Your task to perform on an android device: check android version Image 0: 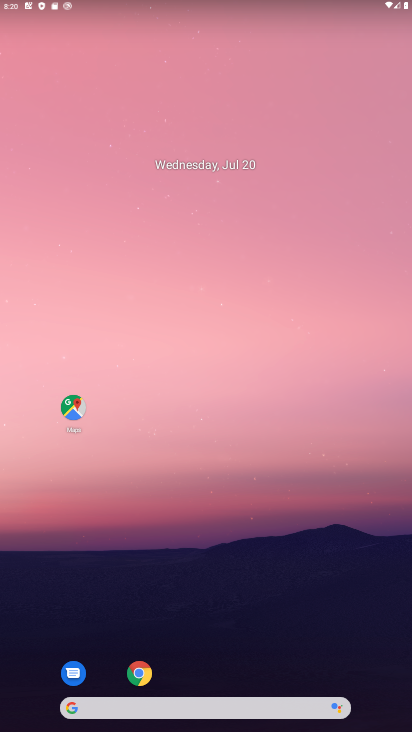
Step 0: click (407, 219)
Your task to perform on an android device: check android version Image 1: 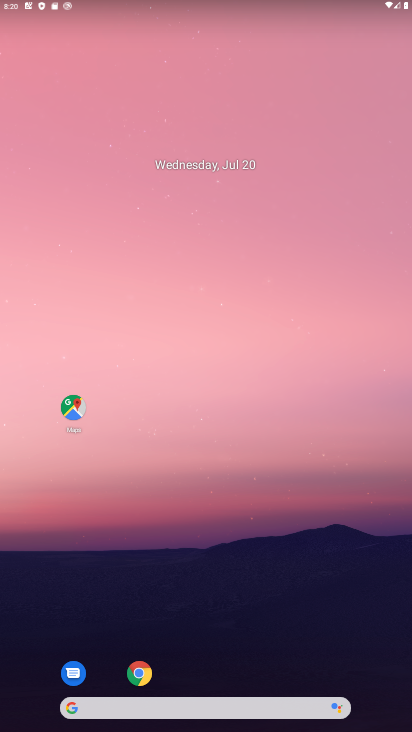
Step 1: drag from (186, 652) to (225, 5)
Your task to perform on an android device: check android version Image 2: 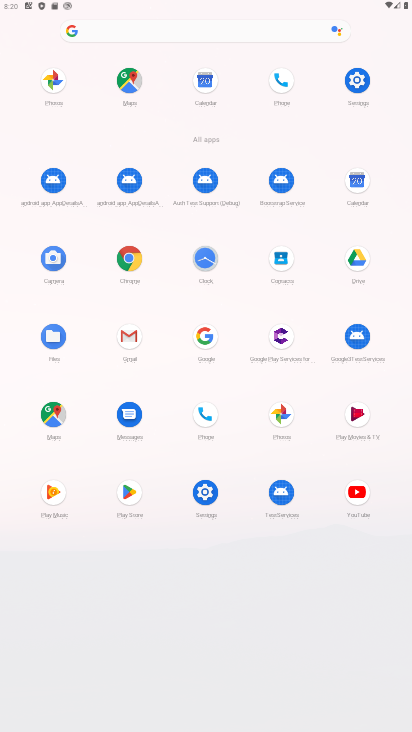
Step 2: click (209, 486)
Your task to perform on an android device: check android version Image 3: 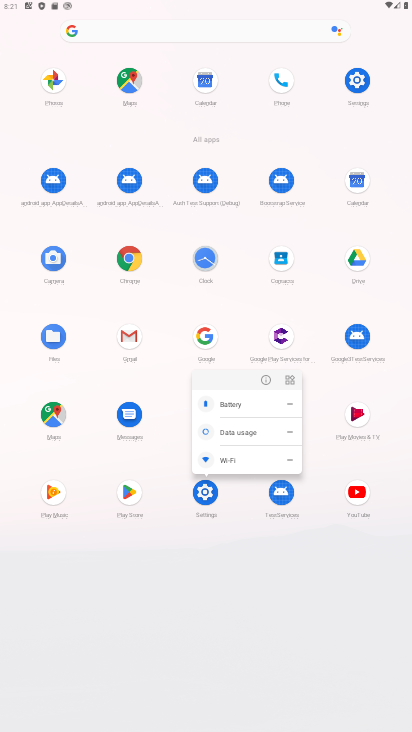
Step 3: click (267, 381)
Your task to perform on an android device: check android version Image 4: 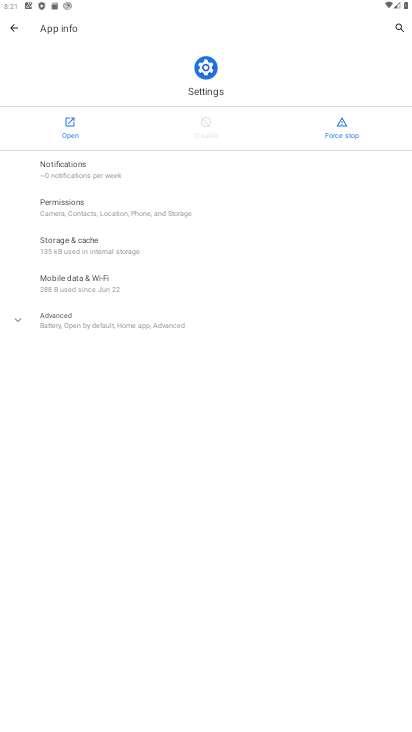
Step 4: click (65, 121)
Your task to perform on an android device: check android version Image 5: 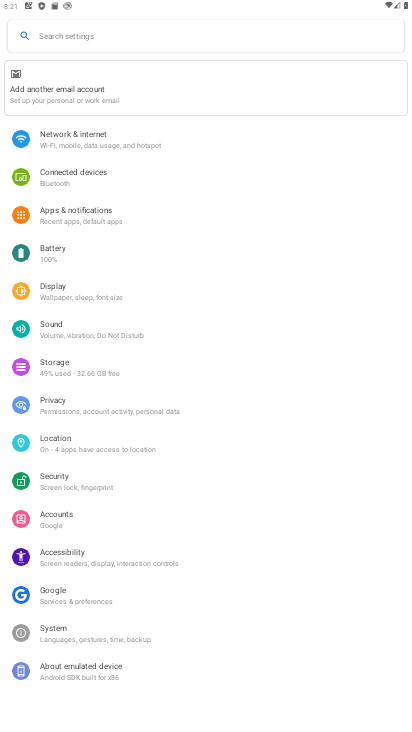
Step 5: click (102, 671)
Your task to perform on an android device: check android version Image 6: 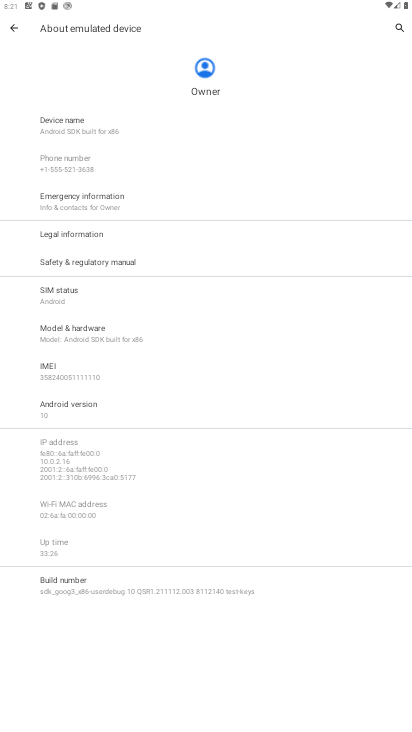
Step 6: click (100, 400)
Your task to perform on an android device: check android version Image 7: 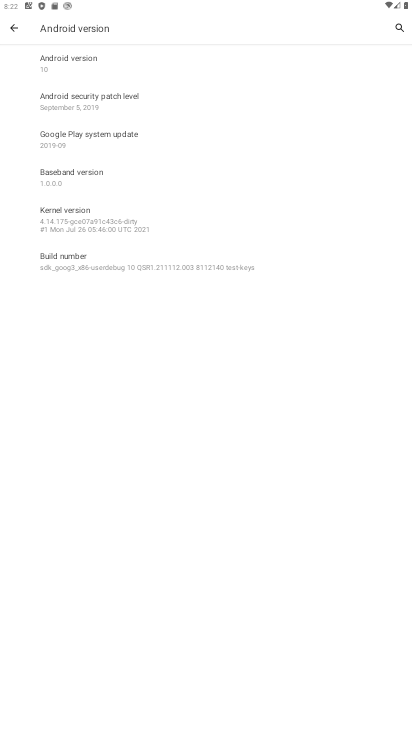
Step 7: task complete